Your task to perform on an android device: turn notification dots off Image 0: 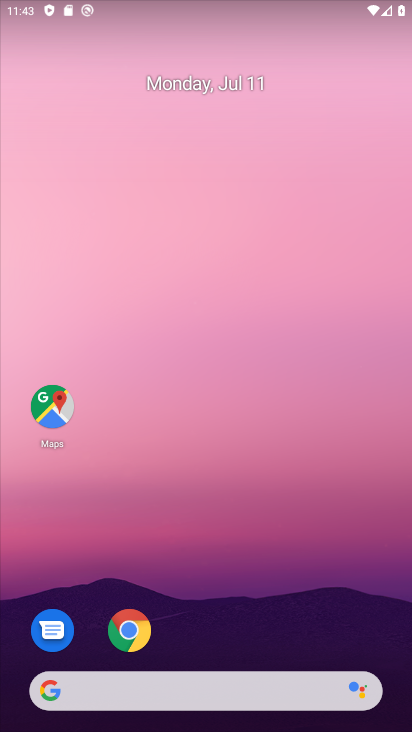
Step 0: drag from (192, 695) to (228, 148)
Your task to perform on an android device: turn notification dots off Image 1: 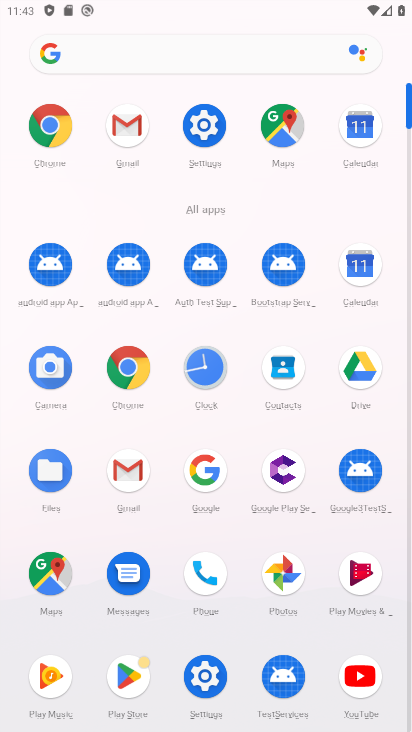
Step 1: click (203, 123)
Your task to perform on an android device: turn notification dots off Image 2: 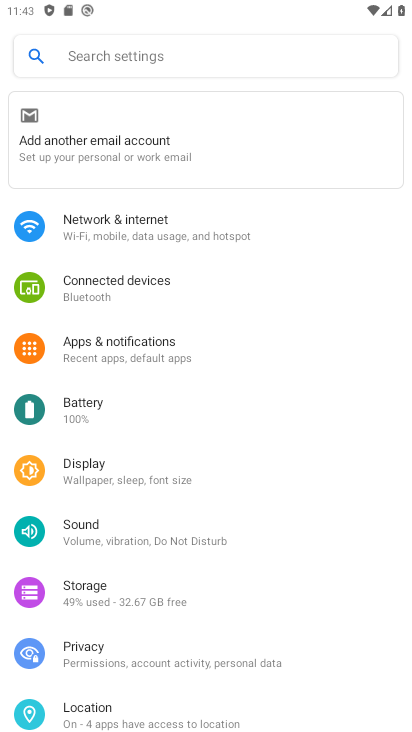
Step 2: click (104, 348)
Your task to perform on an android device: turn notification dots off Image 3: 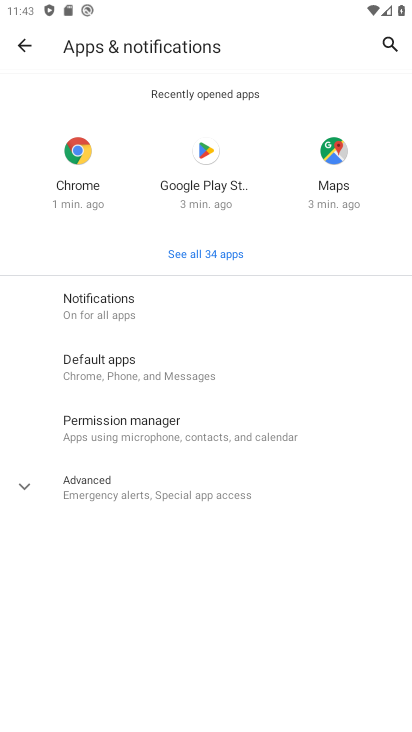
Step 3: click (102, 302)
Your task to perform on an android device: turn notification dots off Image 4: 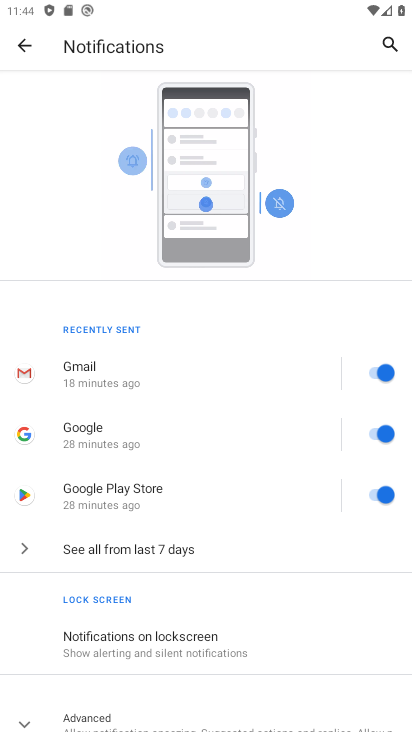
Step 4: drag from (174, 610) to (247, 469)
Your task to perform on an android device: turn notification dots off Image 5: 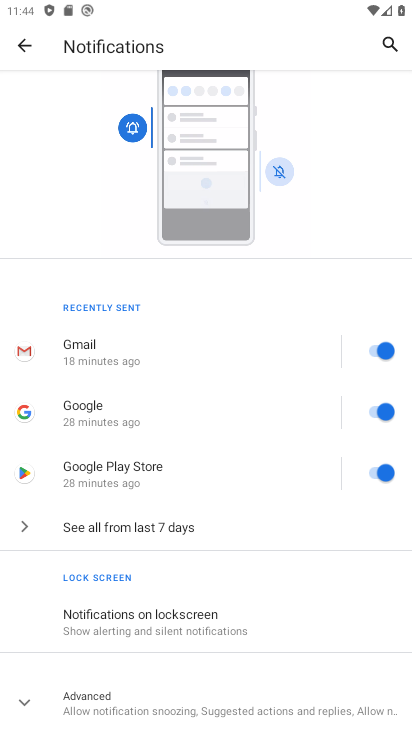
Step 5: click (129, 707)
Your task to perform on an android device: turn notification dots off Image 6: 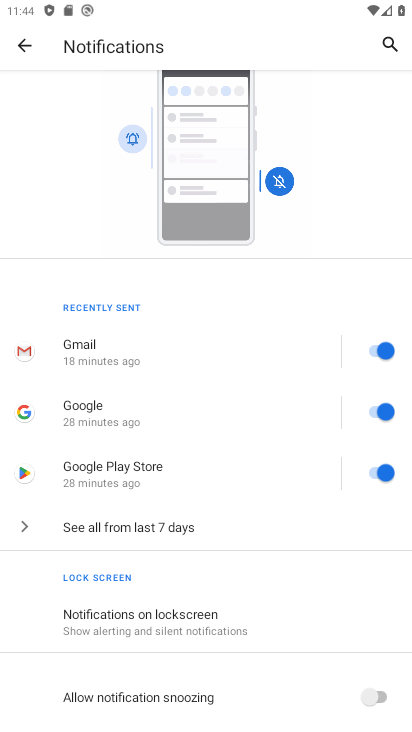
Step 6: drag from (127, 655) to (240, 521)
Your task to perform on an android device: turn notification dots off Image 7: 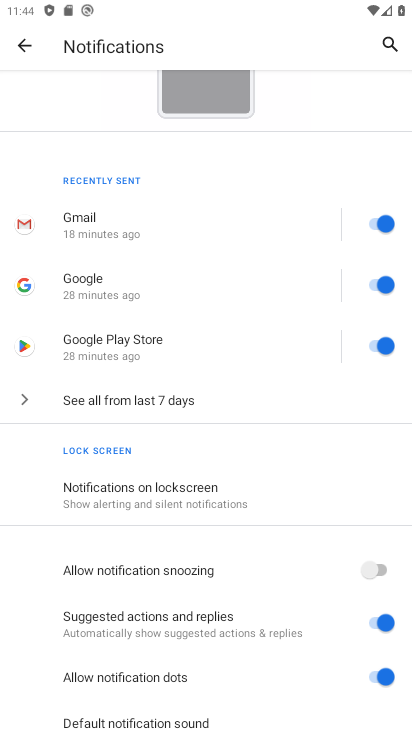
Step 7: drag from (161, 588) to (281, 417)
Your task to perform on an android device: turn notification dots off Image 8: 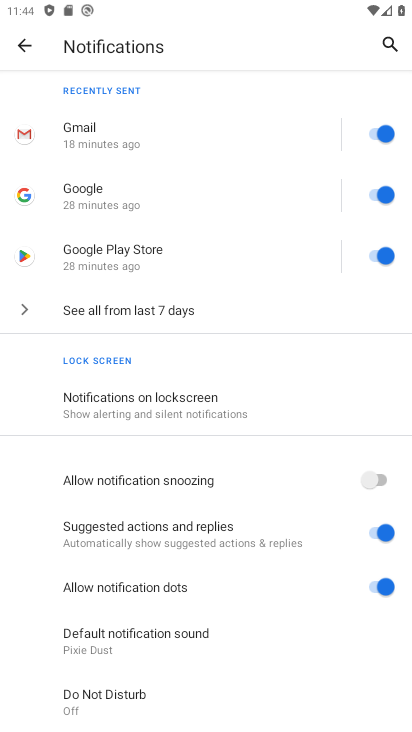
Step 8: click (370, 595)
Your task to perform on an android device: turn notification dots off Image 9: 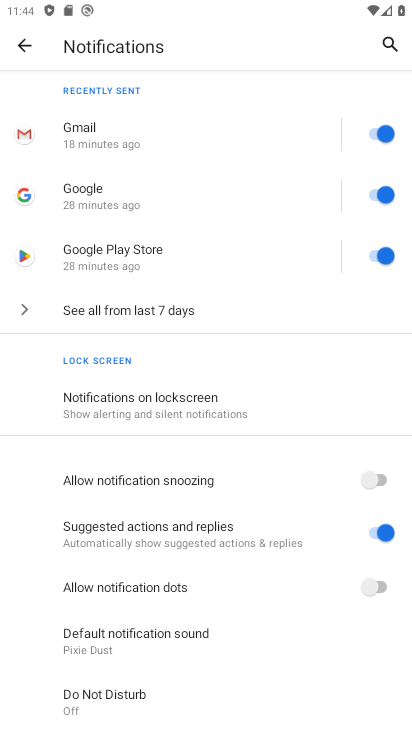
Step 9: task complete